Your task to perform on an android device: Open accessibility settings Image 0: 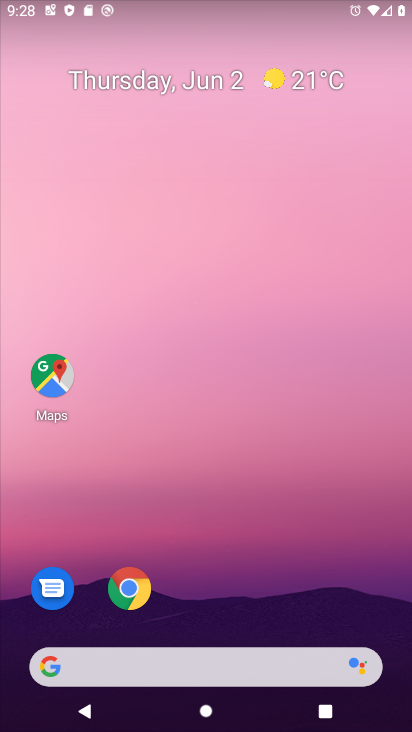
Step 0: drag from (182, 668) to (201, 22)
Your task to perform on an android device: Open accessibility settings Image 1: 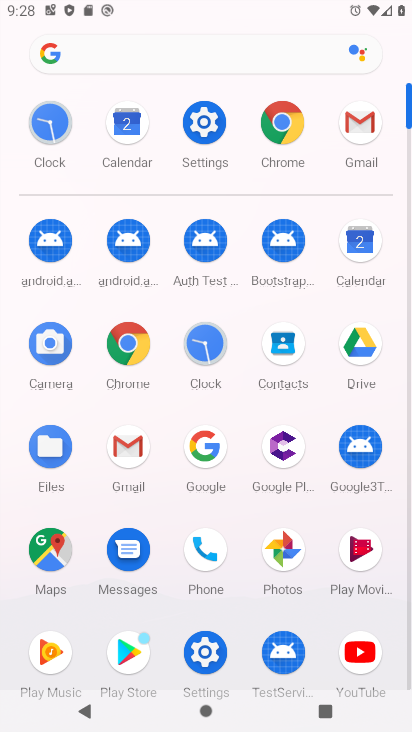
Step 1: click (215, 122)
Your task to perform on an android device: Open accessibility settings Image 2: 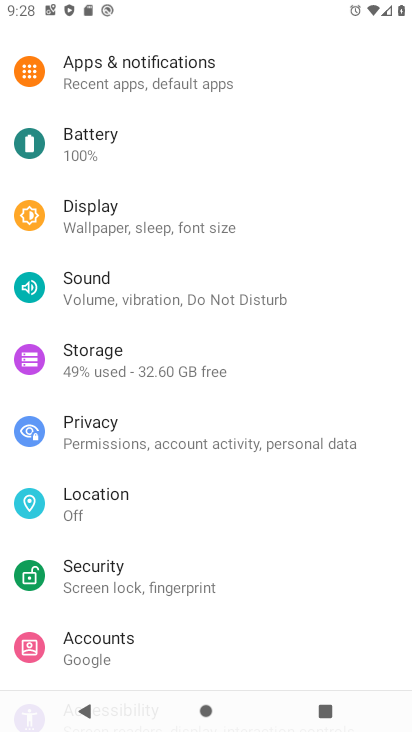
Step 2: drag from (148, 428) to (113, 27)
Your task to perform on an android device: Open accessibility settings Image 3: 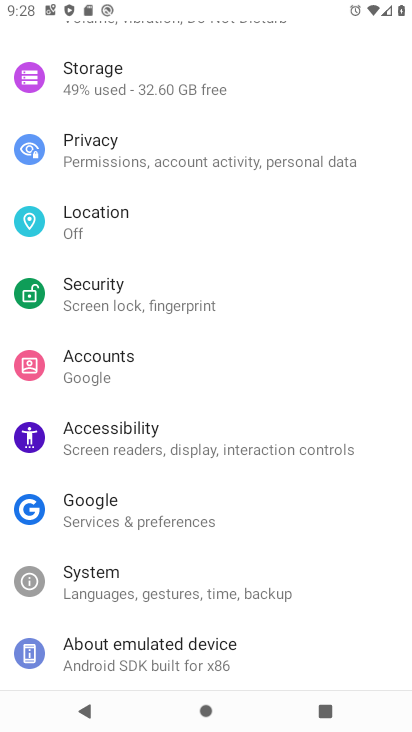
Step 3: click (132, 435)
Your task to perform on an android device: Open accessibility settings Image 4: 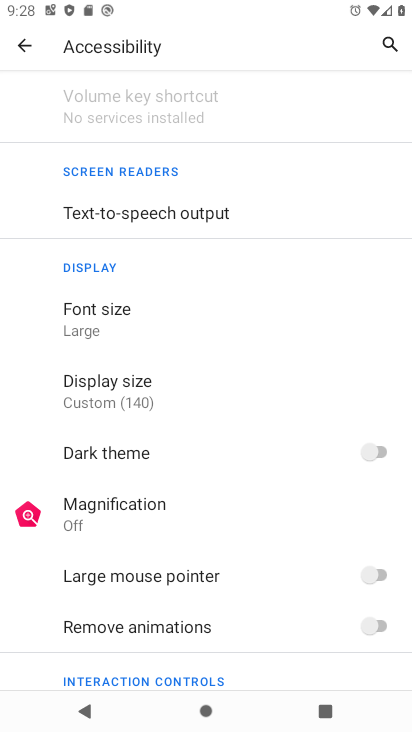
Step 4: task complete